Your task to perform on an android device: Open calendar and show me the third week of next month Image 0: 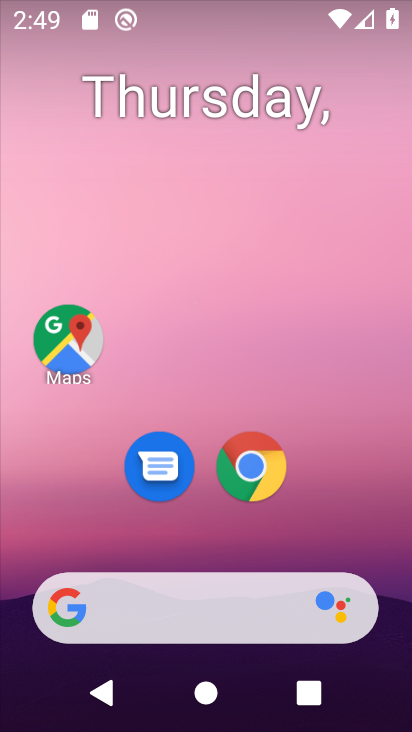
Step 0: drag from (256, 555) to (322, 84)
Your task to perform on an android device: Open calendar and show me the third week of next month Image 1: 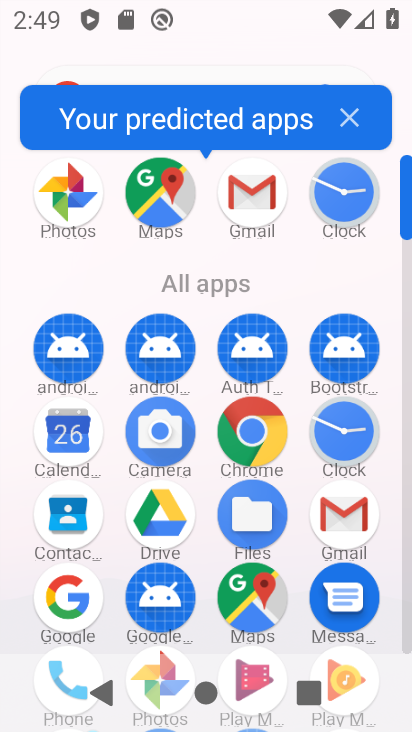
Step 1: click (59, 433)
Your task to perform on an android device: Open calendar and show me the third week of next month Image 2: 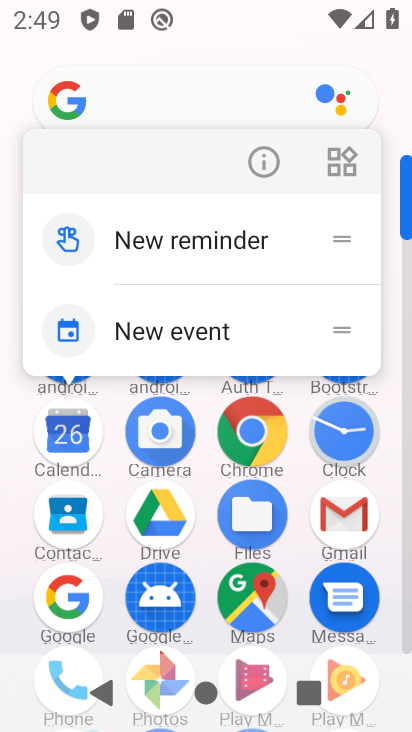
Step 2: click (59, 433)
Your task to perform on an android device: Open calendar and show me the third week of next month Image 3: 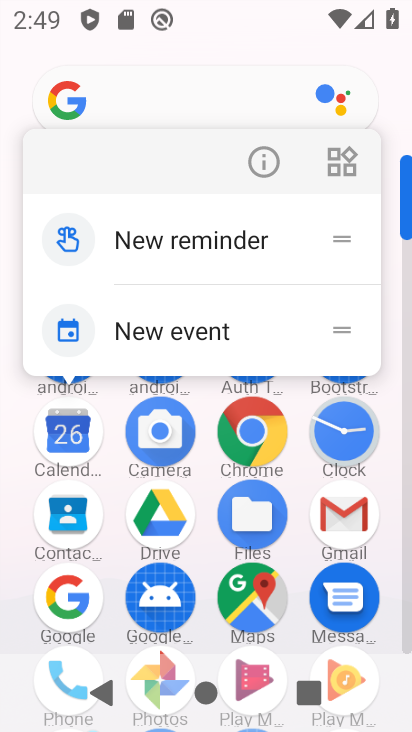
Step 3: click (59, 433)
Your task to perform on an android device: Open calendar and show me the third week of next month Image 4: 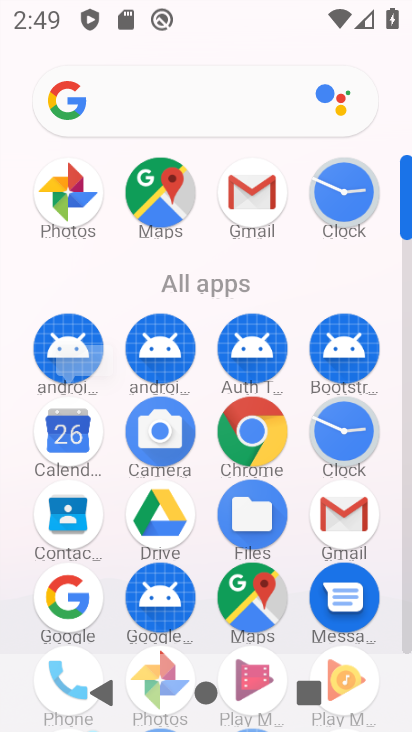
Step 4: click (59, 433)
Your task to perform on an android device: Open calendar and show me the third week of next month Image 5: 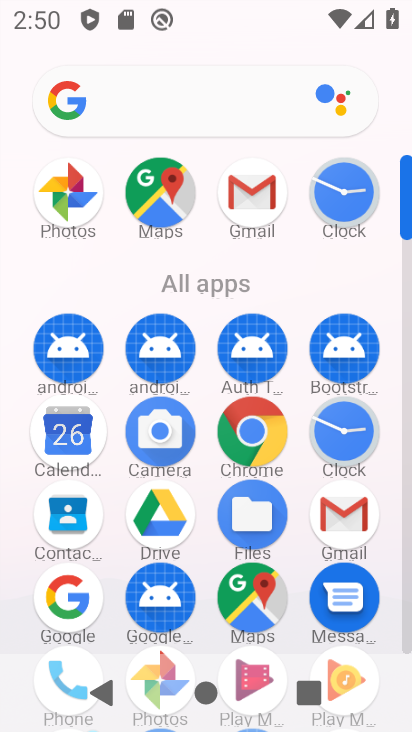
Step 5: click (59, 433)
Your task to perform on an android device: Open calendar and show me the third week of next month Image 6: 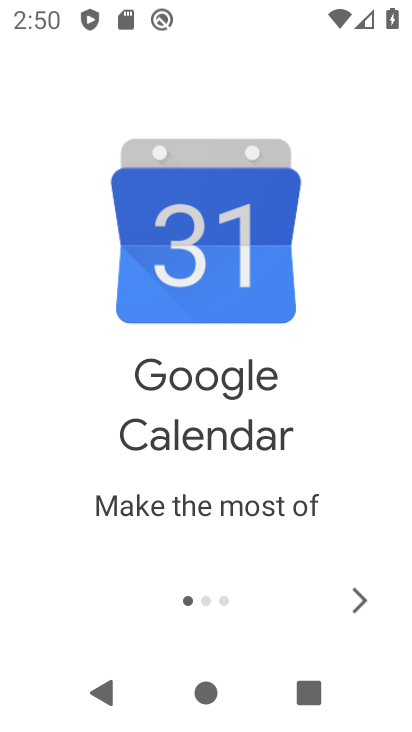
Step 6: click (352, 601)
Your task to perform on an android device: Open calendar and show me the third week of next month Image 7: 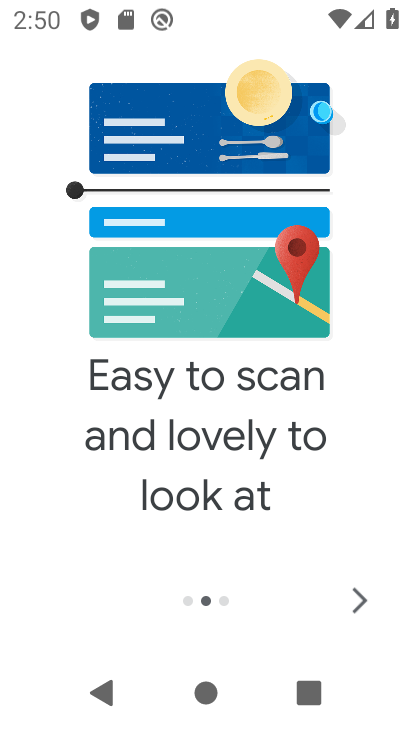
Step 7: click (352, 601)
Your task to perform on an android device: Open calendar and show me the third week of next month Image 8: 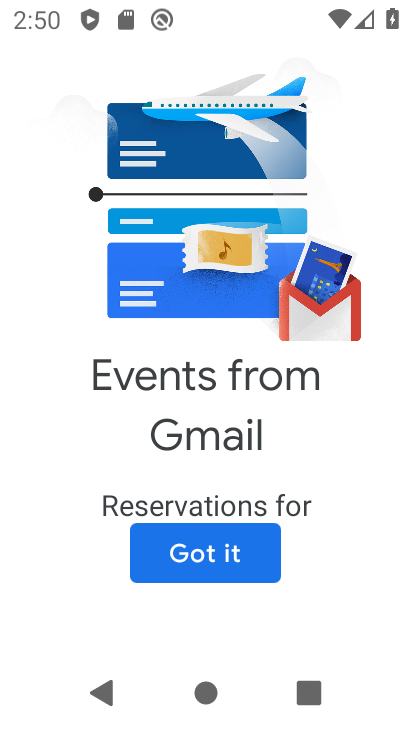
Step 8: click (230, 547)
Your task to perform on an android device: Open calendar and show me the third week of next month Image 9: 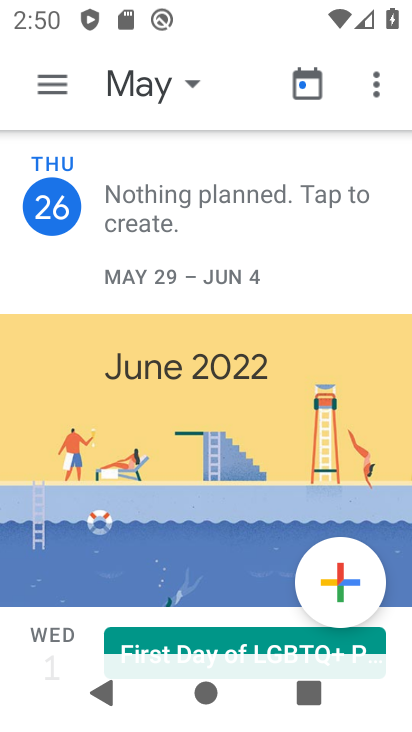
Step 9: click (53, 84)
Your task to perform on an android device: Open calendar and show me the third week of next month Image 10: 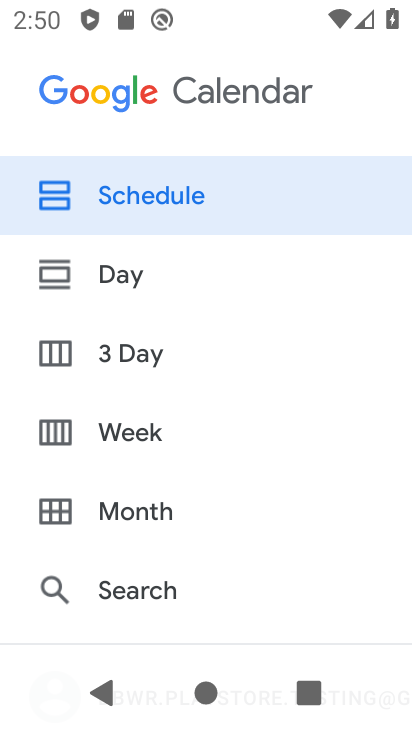
Step 10: click (132, 512)
Your task to perform on an android device: Open calendar and show me the third week of next month Image 11: 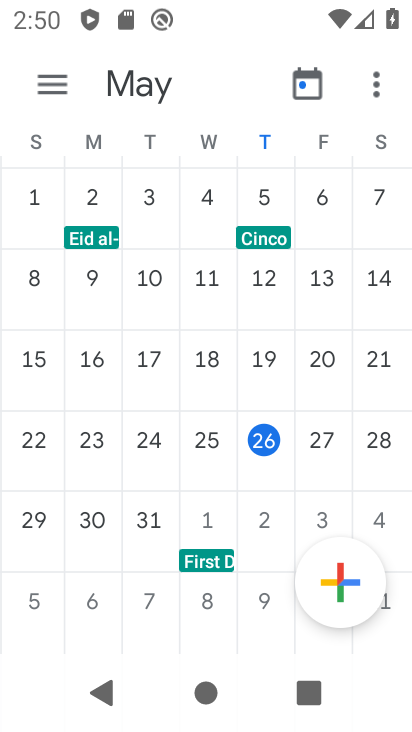
Step 11: drag from (362, 408) to (31, 358)
Your task to perform on an android device: Open calendar and show me the third week of next month Image 12: 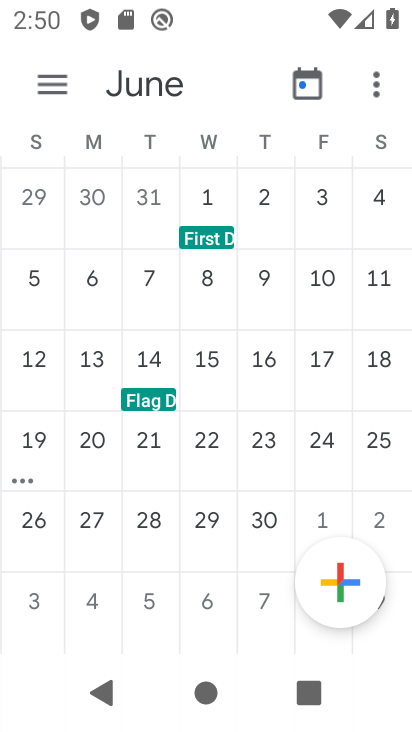
Step 12: click (210, 439)
Your task to perform on an android device: Open calendar and show me the third week of next month Image 13: 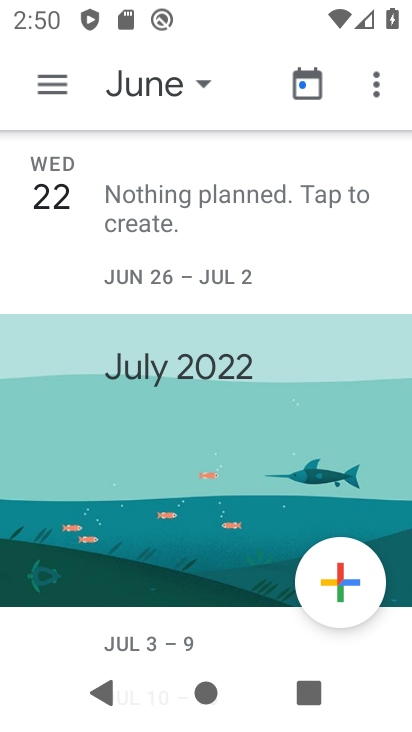
Step 13: task complete